Your task to perform on an android device: turn on showing notifications on the lock screen Image 0: 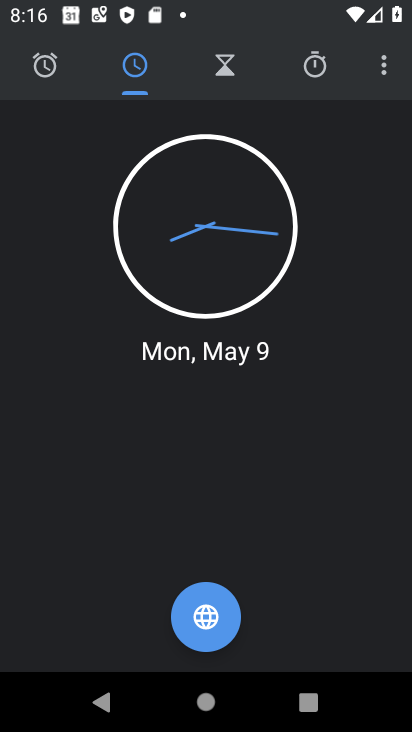
Step 0: press home button
Your task to perform on an android device: turn on showing notifications on the lock screen Image 1: 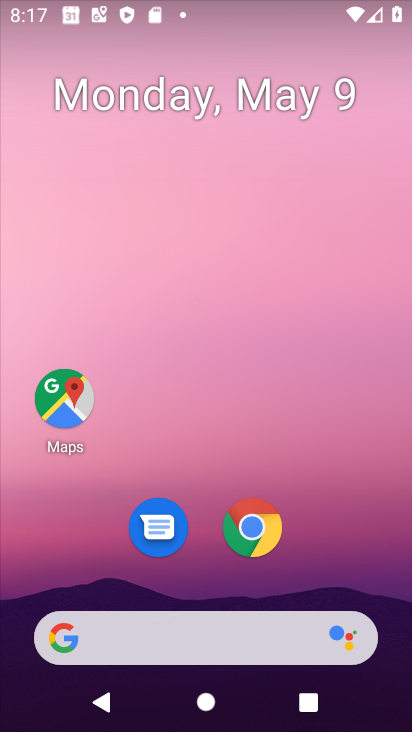
Step 1: drag from (230, 566) to (230, 209)
Your task to perform on an android device: turn on showing notifications on the lock screen Image 2: 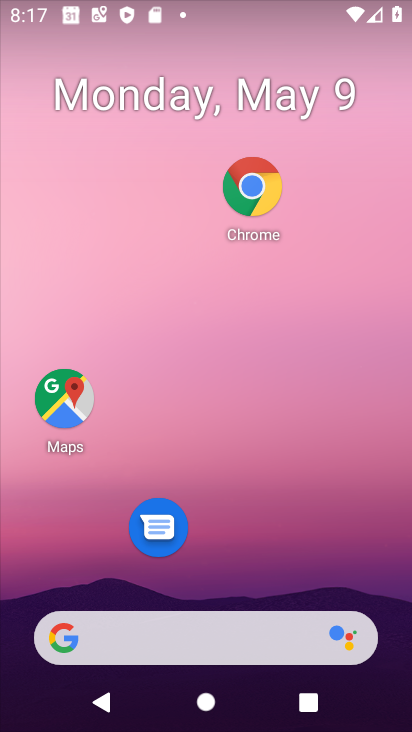
Step 2: drag from (231, 580) to (213, 16)
Your task to perform on an android device: turn on showing notifications on the lock screen Image 3: 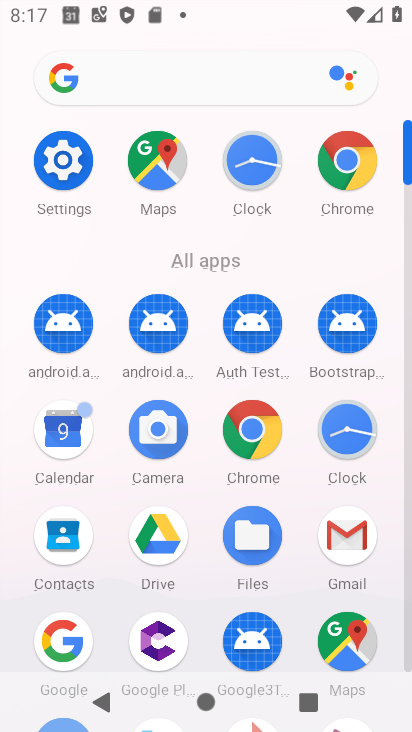
Step 3: click (64, 149)
Your task to perform on an android device: turn on showing notifications on the lock screen Image 4: 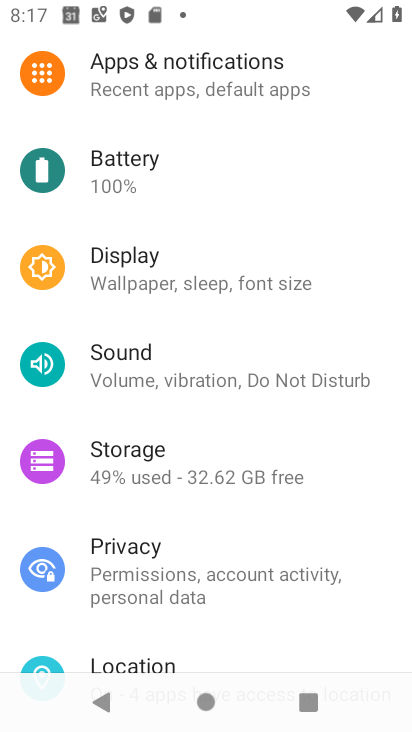
Step 4: click (195, 87)
Your task to perform on an android device: turn on showing notifications on the lock screen Image 5: 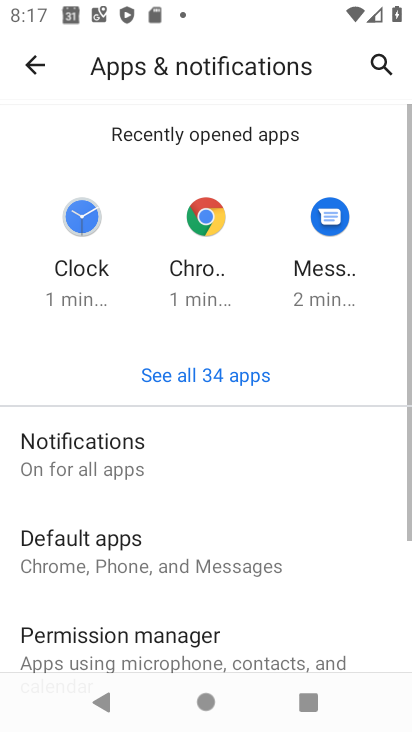
Step 5: click (143, 445)
Your task to perform on an android device: turn on showing notifications on the lock screen Image 6: 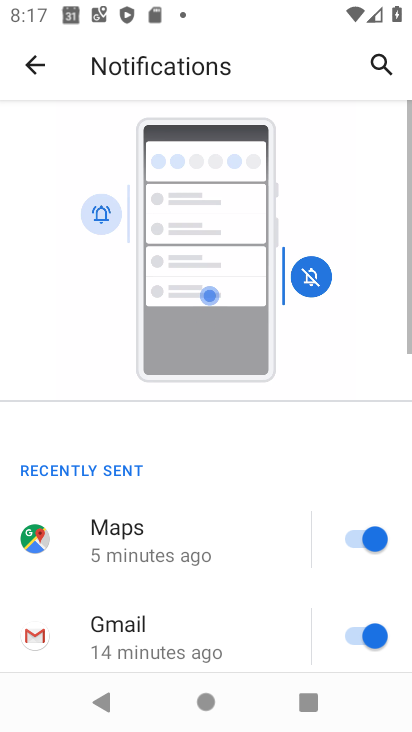
Step 6: drag from (143, 445) to (132, 10)
Your task to perform on an android device: turn on showing notifications on the lock screen Image 7: 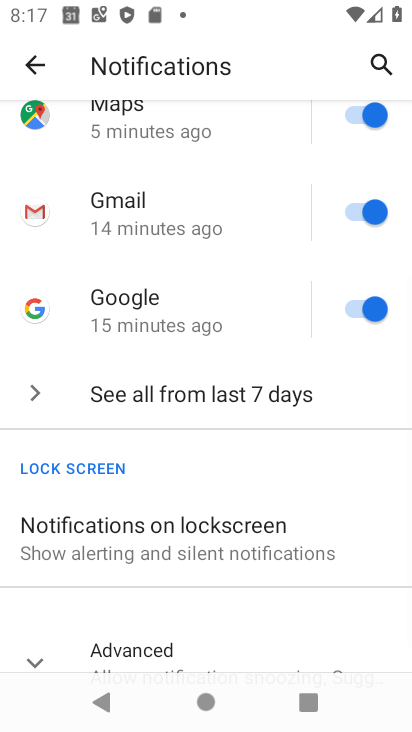
Step 7: click (236, 531)
Your task to perform on an android device: turn on showing notifications on the lock screen Image 8: 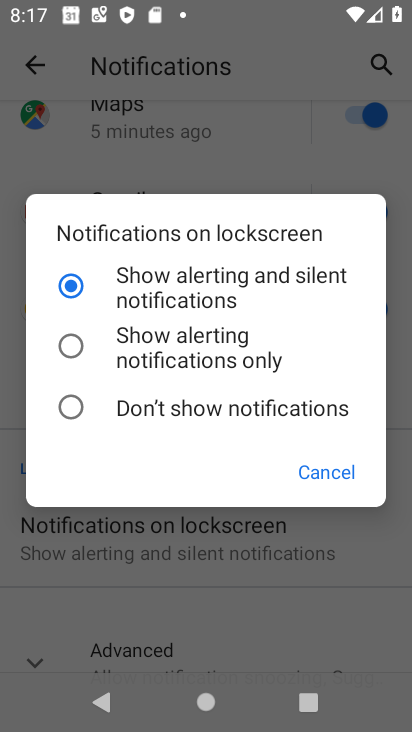
Step 8: click (68, 347)
Your task to perform on an android device: turn on showing notifications on the lock screen Image 9: 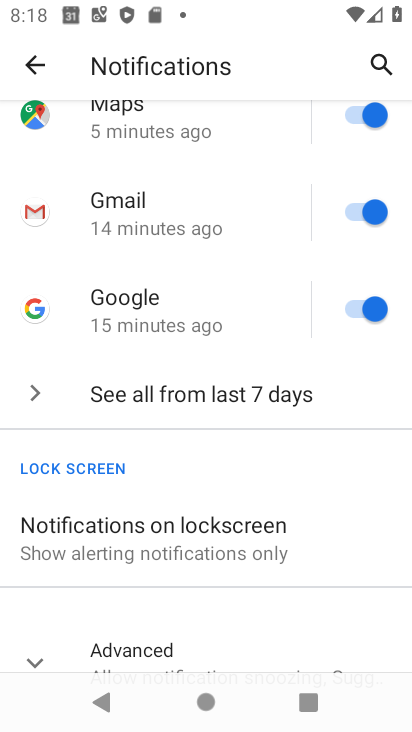
Step 9: task complete